Your task to perform on an android device: Find coffee shops on Maps Image 0: 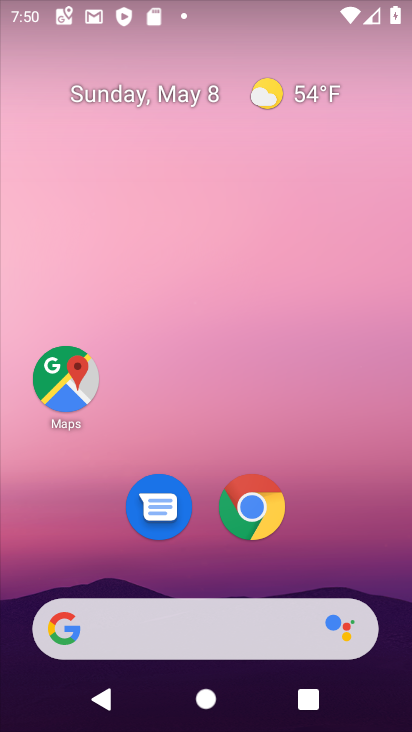
Step 0: drag from (373, 542) to (373, 86)
Your task to perform on an android device: Find coffee shops on Maps Image 1: 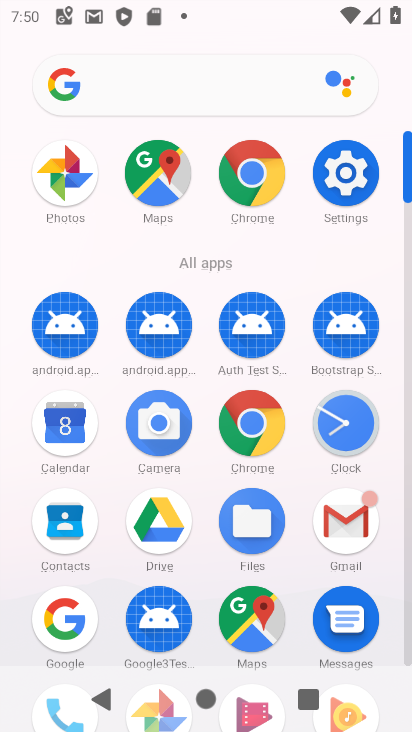
Step 1: click (174, 193)
Your task to perform on an android device: Find coffee shops on Maps Image 2: 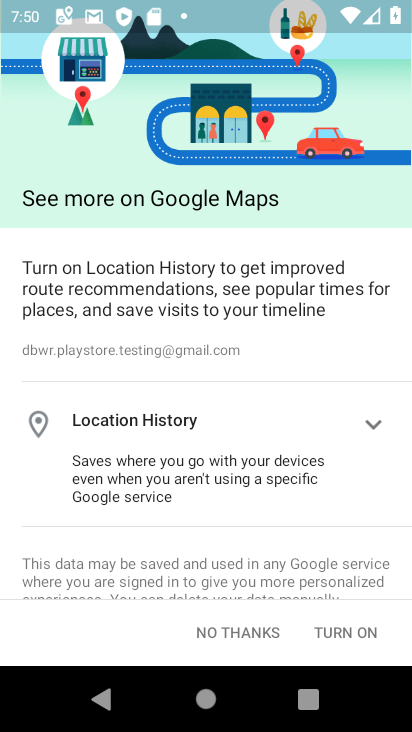
Step 2: click (262, 636)
Your task to perform on an android device: Find coffee shops on Maps Image 3: 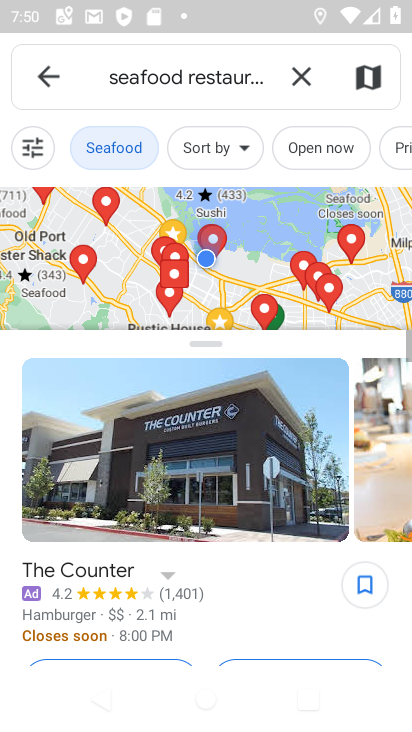
Step 3: click (304, 71)
Your task to perform on an android device: Find coffee shops on Maps Image 4: 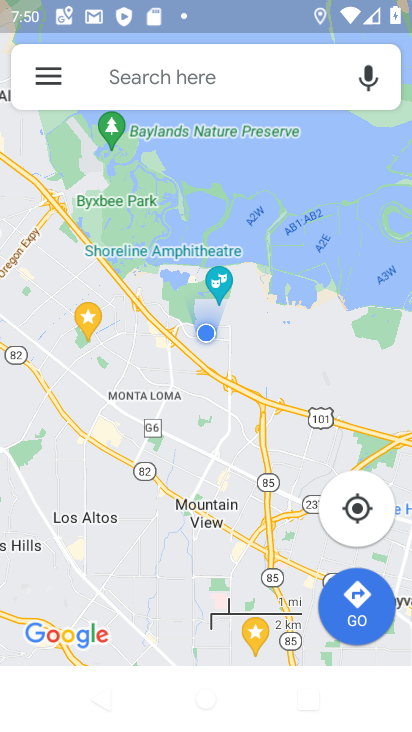
Step 4: click (212, 88)
Your task to perform on an android device: Find coffee shops on Maps Image 5: 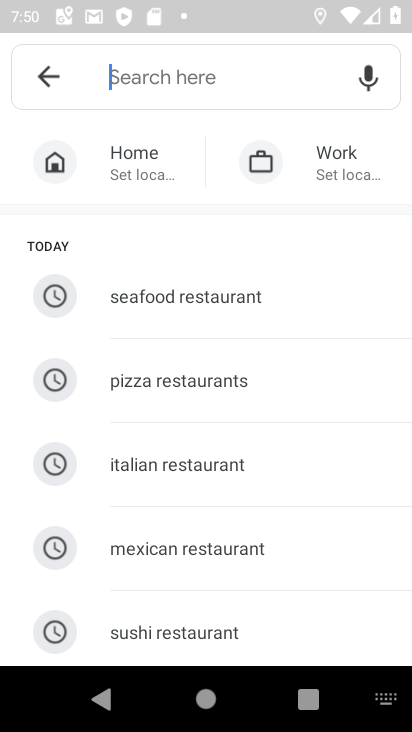
Step 5: type "coffee shops"
Your task to perform on an android device: Find coffee shops on Maps Image 6: 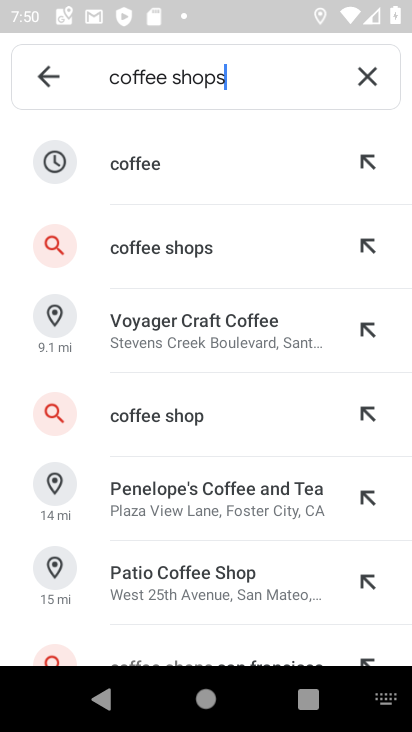
Step 6: click (175, 254)
Your task to perform on an android device: Find coffee shops on Maps Image 7: 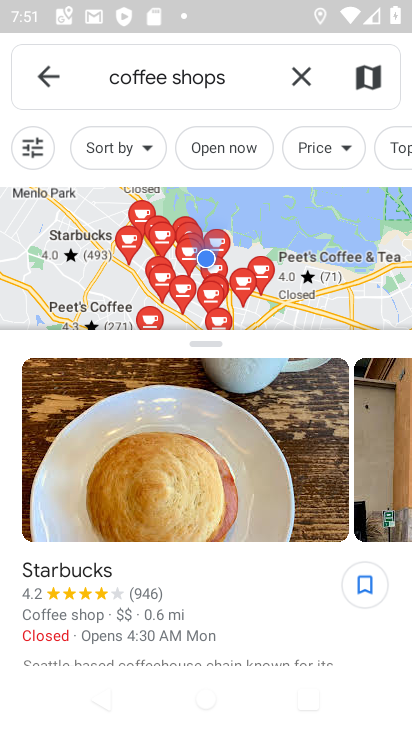
Step 7: task complete